Your task to perform on an android device: toggle airplane mode Image 0: 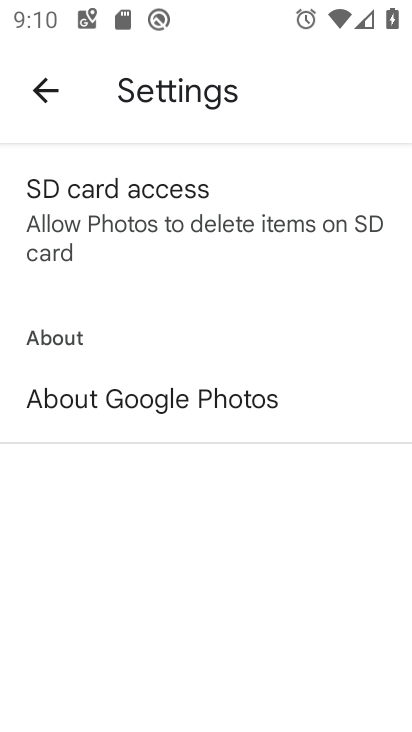
Step 0: press home button
Your task to perform on an android device: toggle airplane mode Image 1: 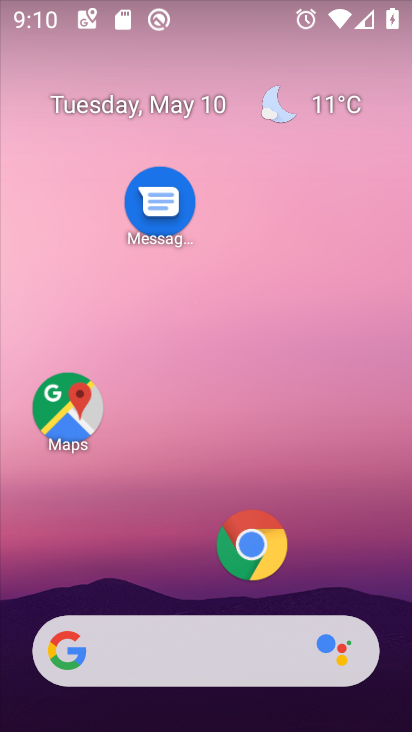
Step 1: drag from (257, 7) to (244, 471)
Your task to perform on an android device: toggle airplane mode Image 2: 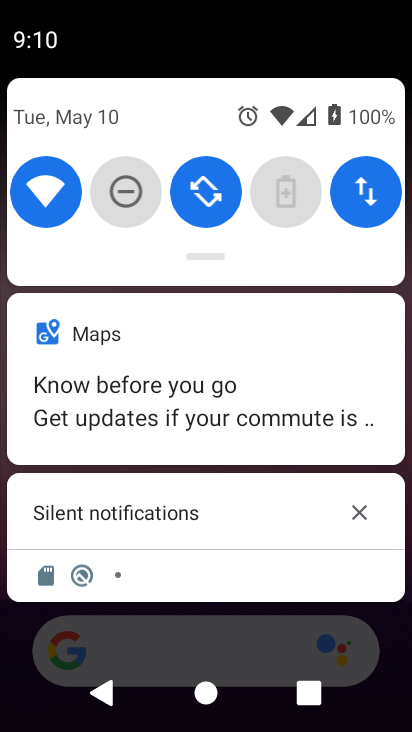
Step 2: drag from (235, 252) to (197, 699)
Your task to perform on an android device: toggle airplane mode Image 3: 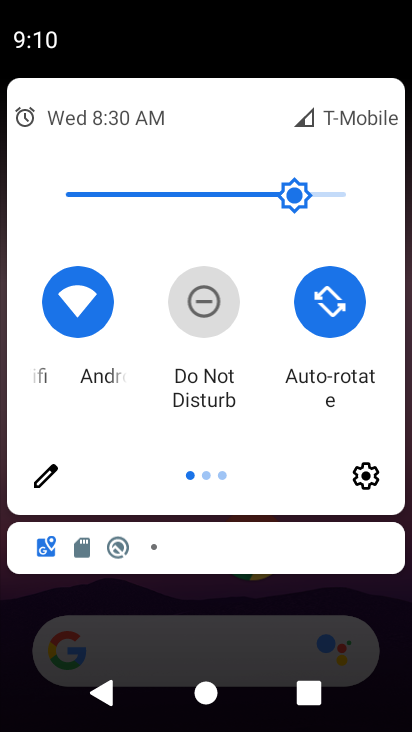
Step 3: drag from (351, 344) to (27, 348)
Your task to perform on an android device: toggle airplane mode Image 4: 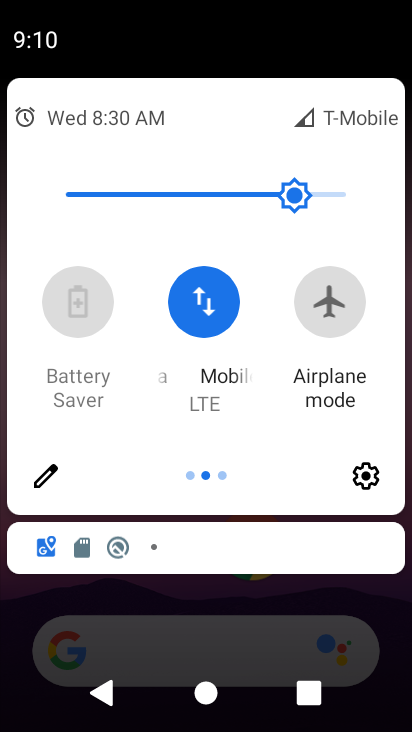
Step 4: click (326, 311)
Your task to perform on an android device: toggle airplane mode Image 5: 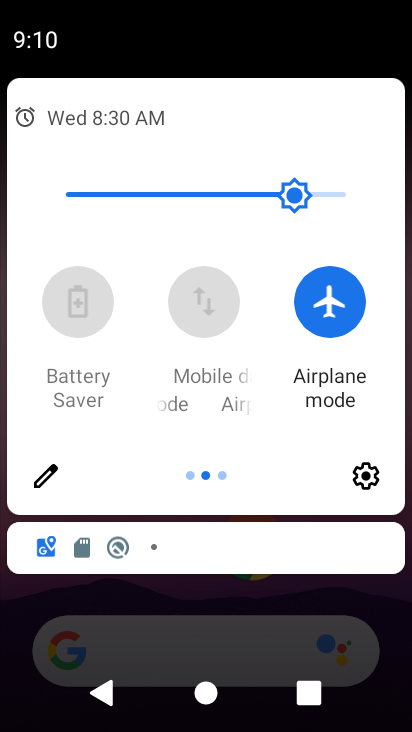
Step 5: task complete